Your task to perform on an android device: What's the weather going to be tomorrow? Image 0: 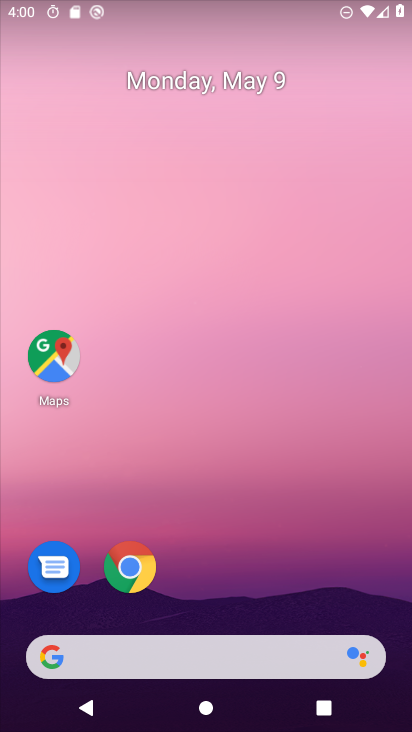
Step 0: drag from (251, 540) to (215, 110)
Your task to perform on an android device: What's the weather going to be tomorrow? Image 1: 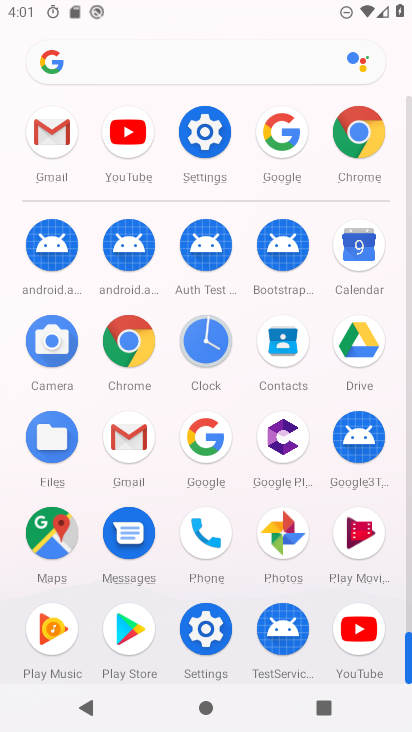
Step 1: click (206, 446)
Your task to perform on an android device: What's the weather going to be tomorrow? Image 2: 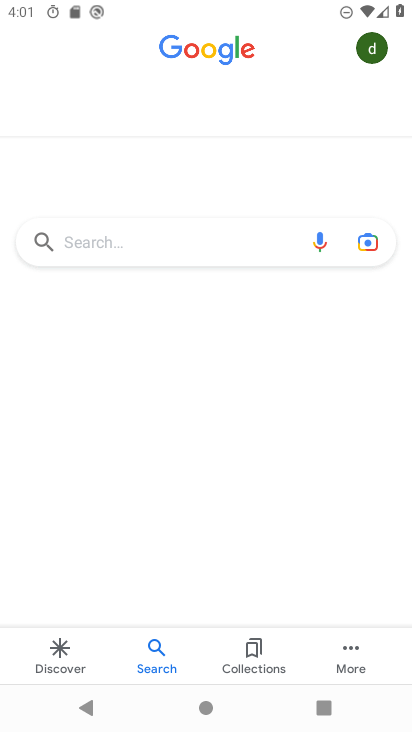
Step 2: click (166, 240)
Your task to perform on an android device: What's the weather going to be tomorrow? Image 3: 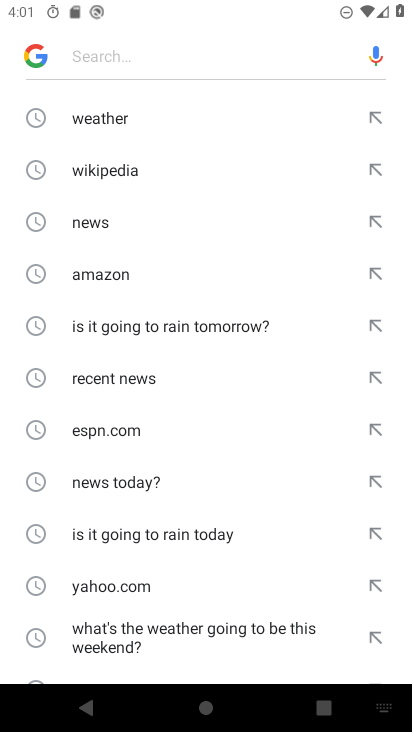
Step 3: click (165, 107)
Your task to perform on an android device: What's the weather going to be tomorrow? Image 4: 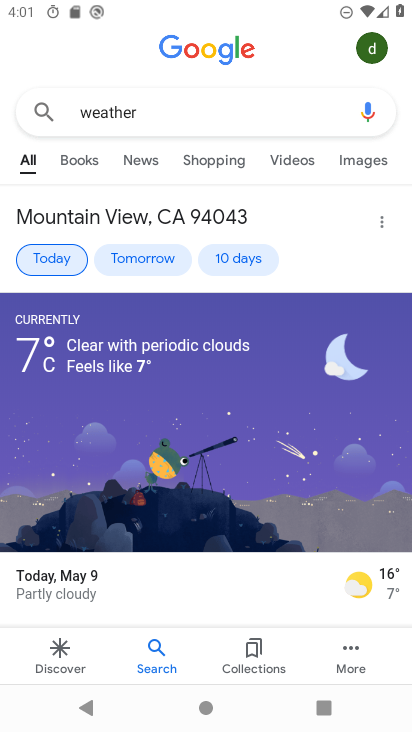
Step 4: click (144, 265)
Your task to perform on an android device: What's the weather going to be tomorrow? Image 5: 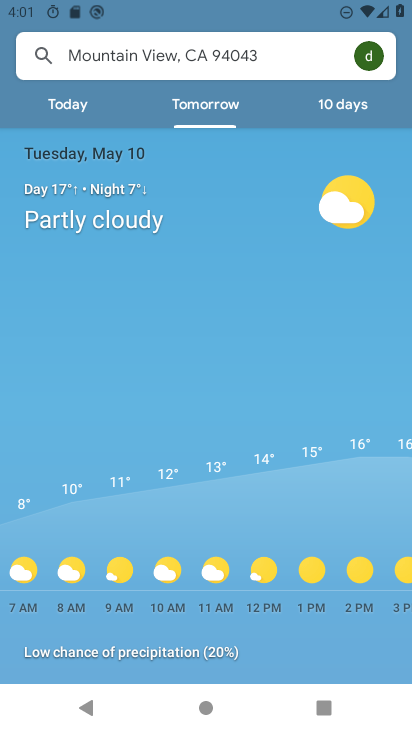
Step 5: task complete